Your task to perform on an android device: Open the calendar and show me this week's events? Image 0: 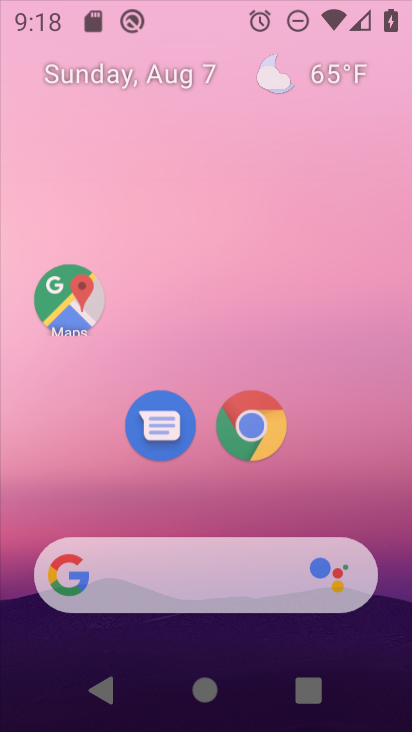
Step 0: press home button
Your task to perform on an android device: Open the calendar and show me this week's events? Image 1: 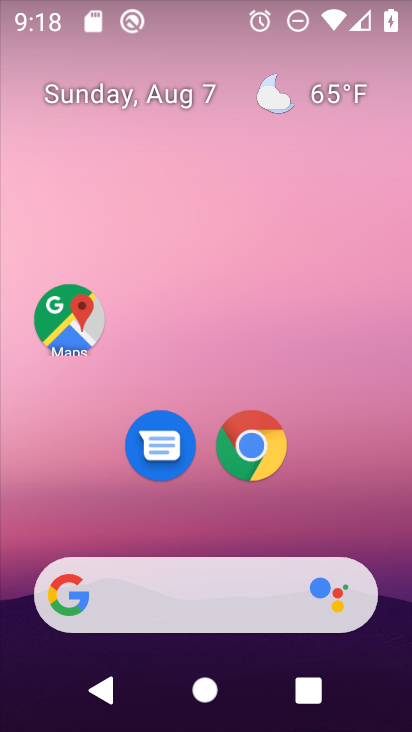
Step 1: drag from (206, 522) to (217, 83)
Your task to perform on an android device: Open the calendar and show me this week's events? Image 2: 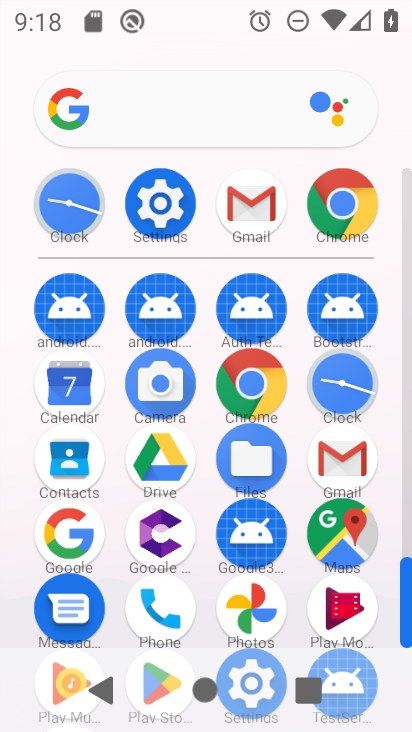
Step 2: click (69, 380)
Your task to perform on an android device: Open the calendar and show me this week's events? Image 3: 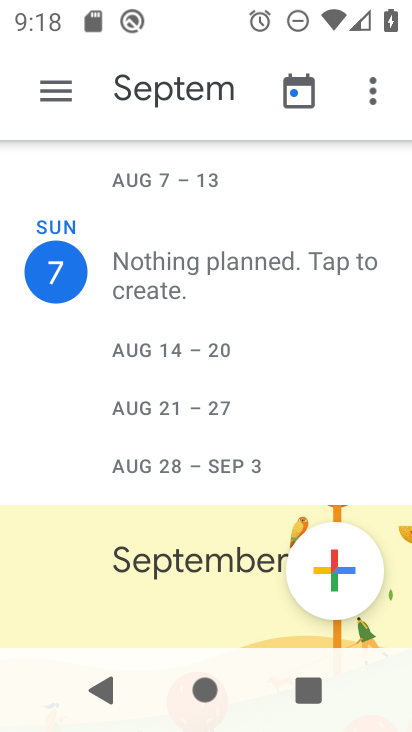
Step 3: click (53, 94)
Your task to perform on an android device: Open the calendar and show me this week's events? Image 4: 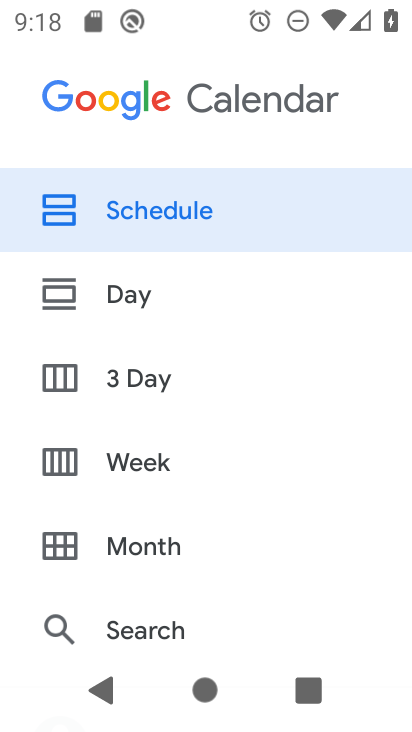
Step 4: click (93, 443)
Your task to perform on an android device: Open the calendar and show me this week's events? Image 5: 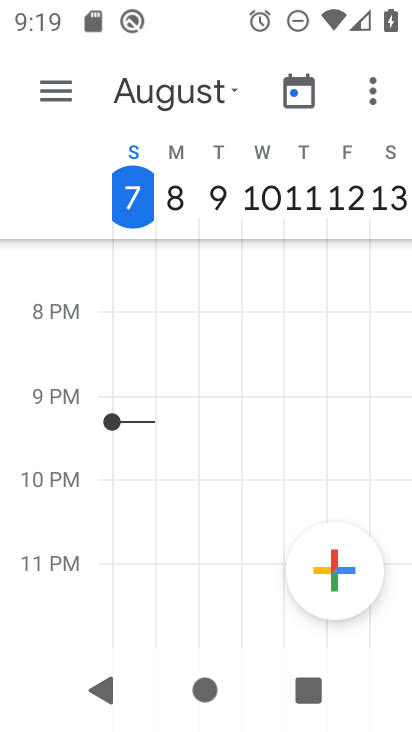
Step 5: click (208, 90)
Your task to perform on an android device: Open the calendar and show me this week's events? Image 6: 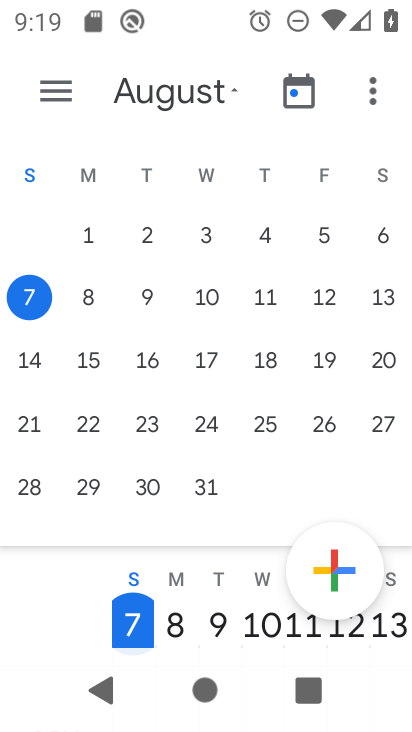
Step 6: click (52, 82)
Your task to perform on an android device: Open the calendar and show me this week's events? Image 7: 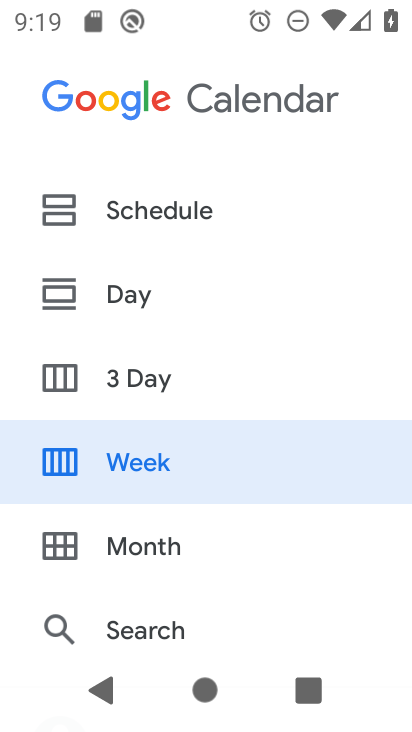
Step 7: drag from (129, 582) to (130, 141)
Your task to perform on an android device: Open the calendar and show me this week's events? Image 8: 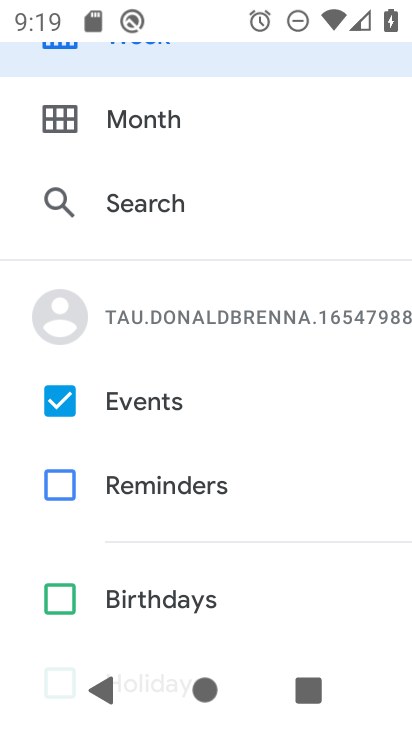
Step 8: drag from (154, 162) to (135, 604)
Your task to perform on an android device: Open the calendar and show me this week's events? Image 9: 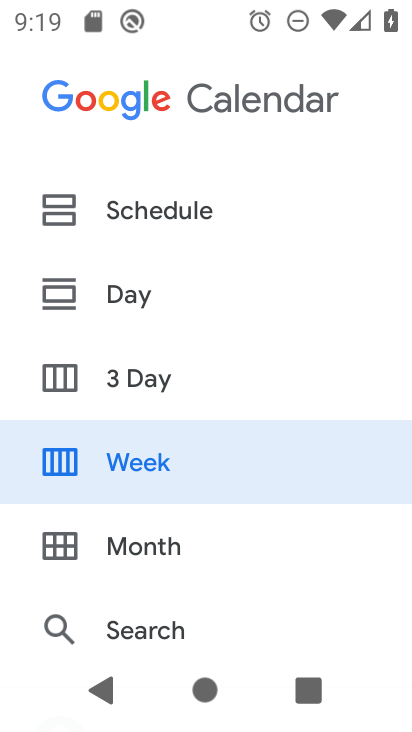
Step 9: click (89, 197)
Your task to perform on an android device: Open the calendar and show me this week's events? Image 10: 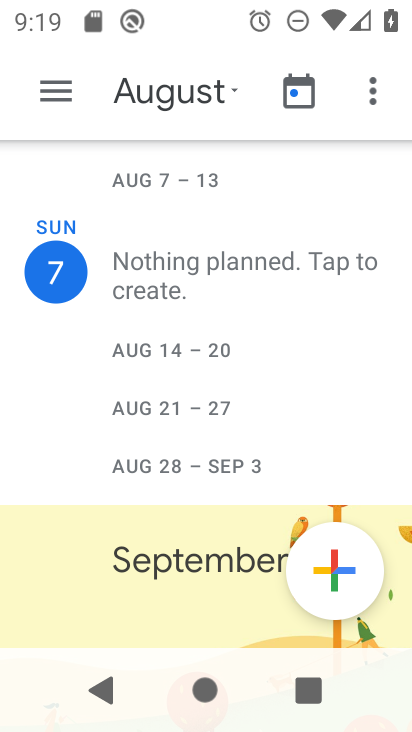
Step 10: task complete